Your task to perform on an android device: turn off location history Image 0: 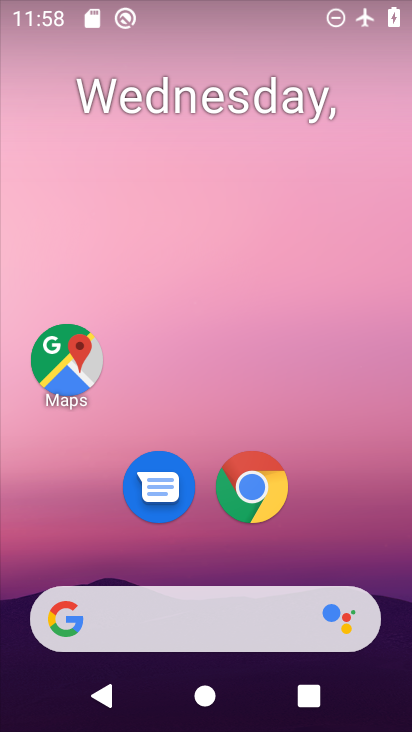
Step 0: drag from (333, 503) to (271, 108)
Your task to perform on an android device: turn off location history Image 1: 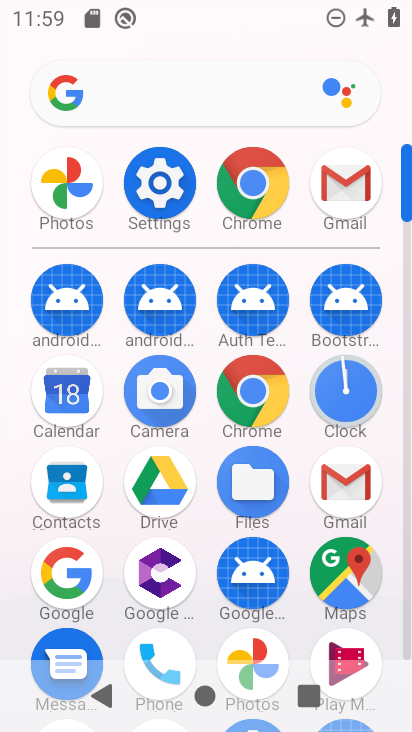
Step 1: drag from (284, 595) to (253, 376)
Your task to perform on an android device: turn off location history Image 2: 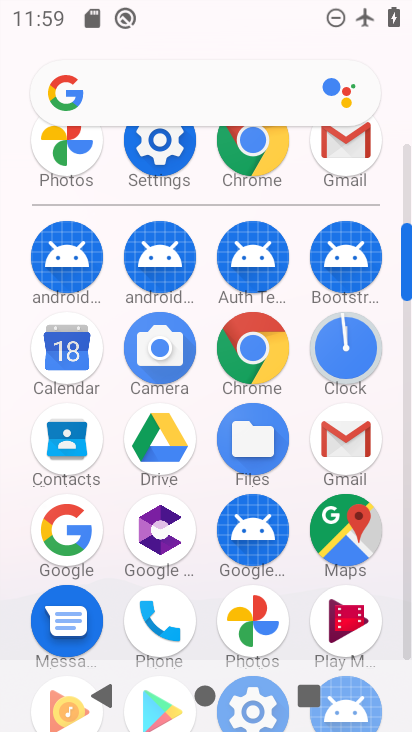
Step 2: click (321, 527)
Your task to perform on an android device: turn off location history Image 3: 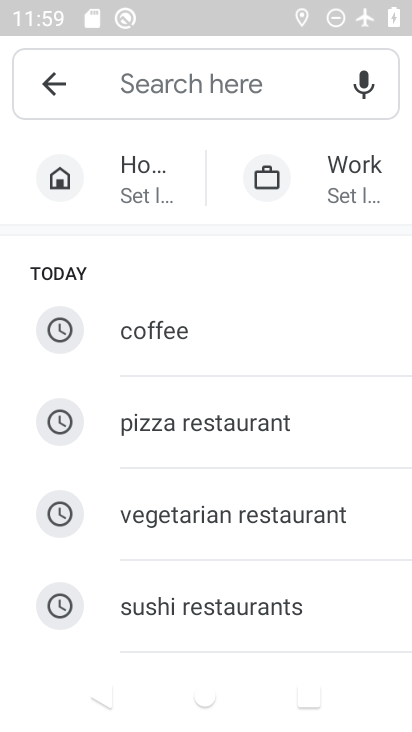
Step 3: click (54, 78)
Your task to perform on an android device: turn off location history Image 4: 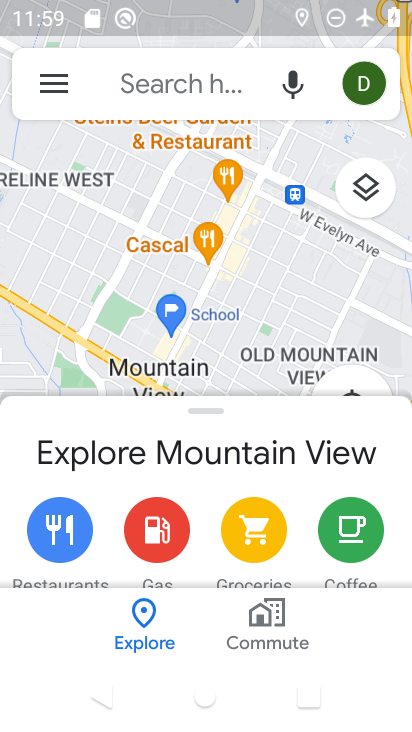
Step 4: click (52, 83)
Your task to perform on an android device: turn off location history Image 5: 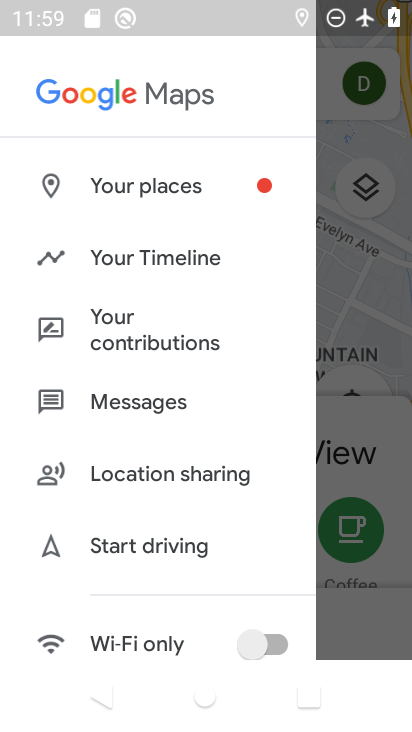
Step 5: click (180, 262)
Your task to perform on an android device: turn off location history Image 6: 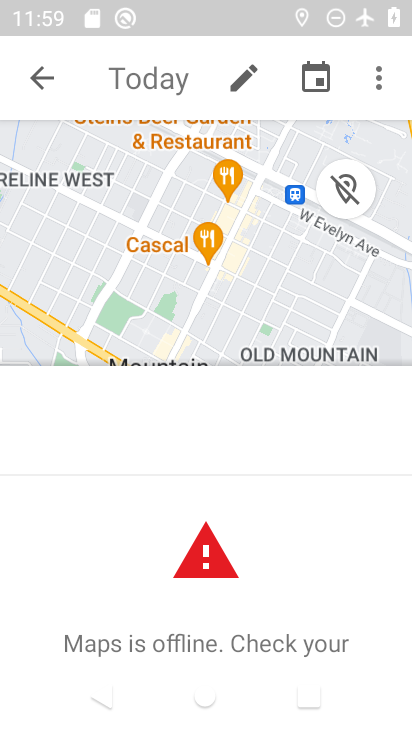
Step 6: click (377, 74)
Your task to perform on an android device: turn off location history Image 7: 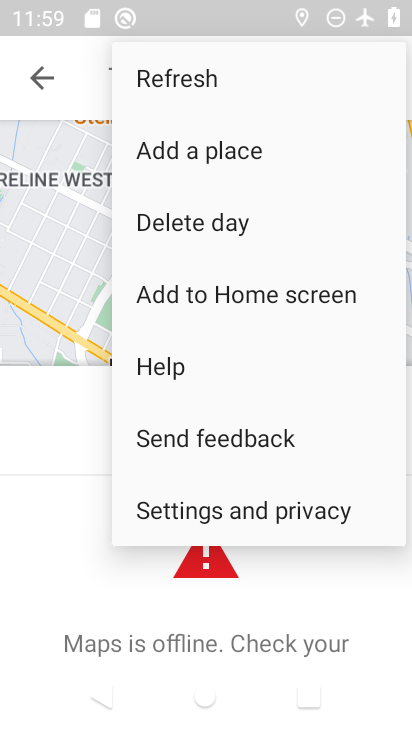
Step 7: click (272, 508)
Your task to perform on an android device: turn off location history Image 8: 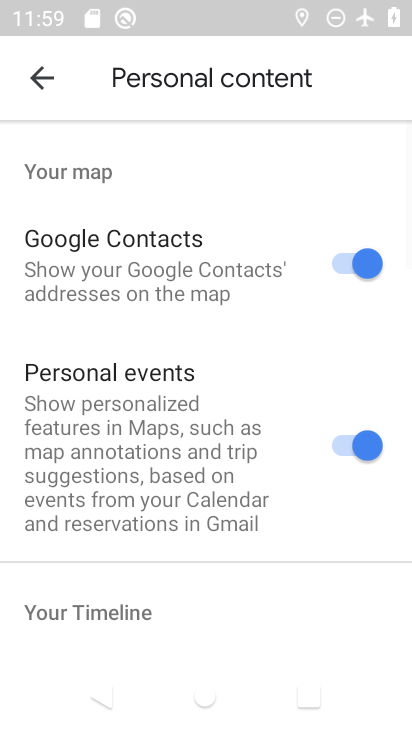
Step 8: drag from (279, 429) to (234, 30)
Your task to perform on an android device: turn off location history Image 9: 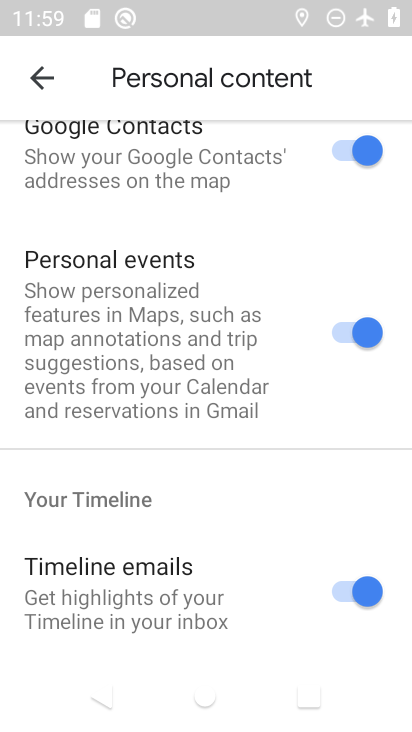
Step 9: drag from (241, 572) to (238, 225)
Your task to perform on an android device: turn off location history Image 10: 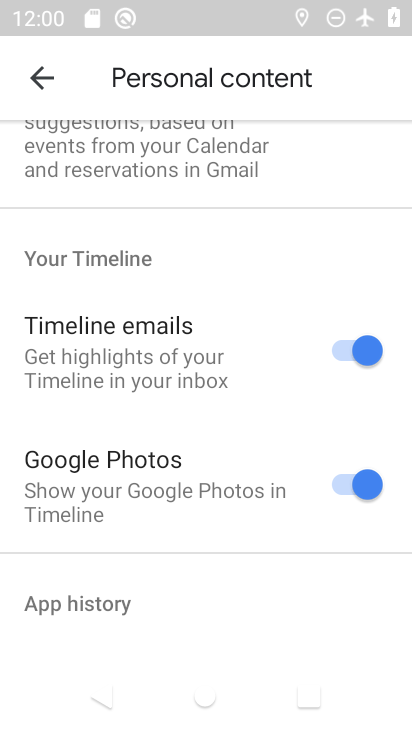
Step 10: drag from (243, 518) to (235, 75)
Your task to perform on an android device: turn off location history Image 11: 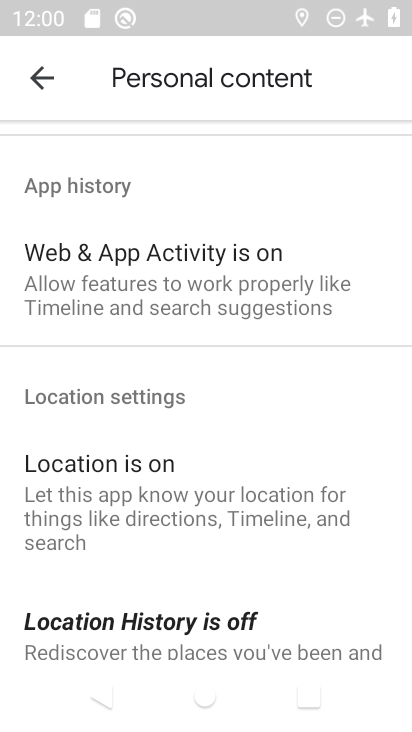
Step 11: click (247, 262)
Your task to perform on an android device: turn off location history Image 12: 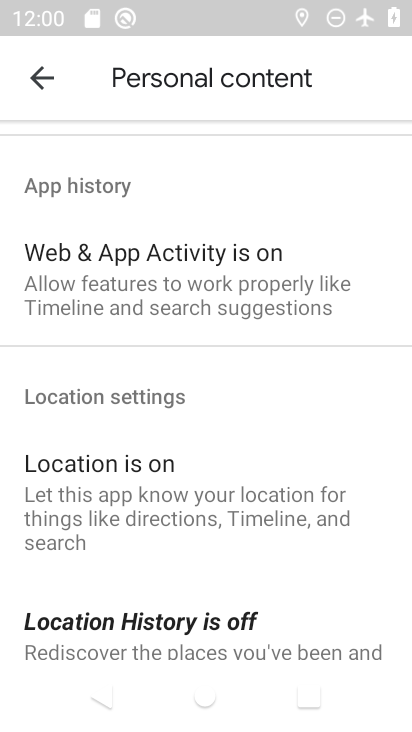
Step 12: drag from (223, 577) to (223, 480)
Your task to perform on an android device: turn off location history Image 13: 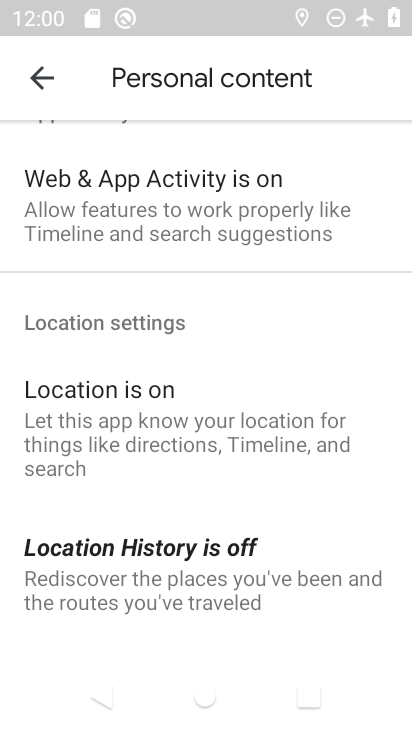
Step 13: click (164, 543)
Your task to perform on an android device: turn off location history Image 14: 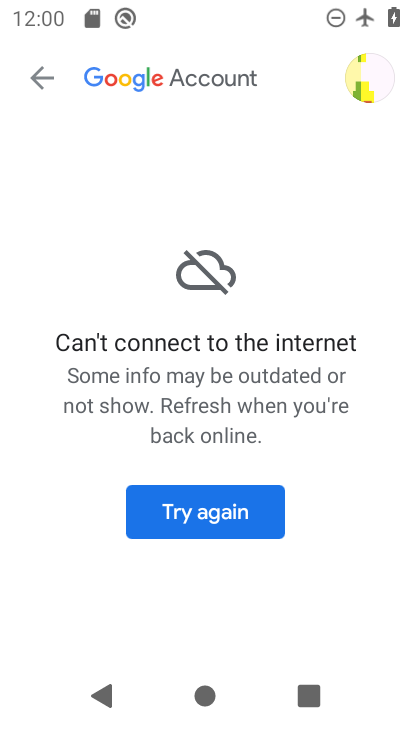
Step 14: click (216, 505)
Your task to perform on an android device: turn off location history Image 15: 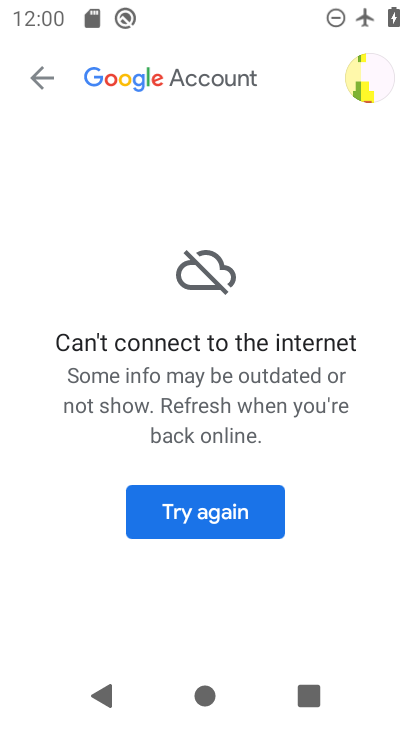
Step 15: task complete